Your task to perform on an android device: open wifi settings Image 0: 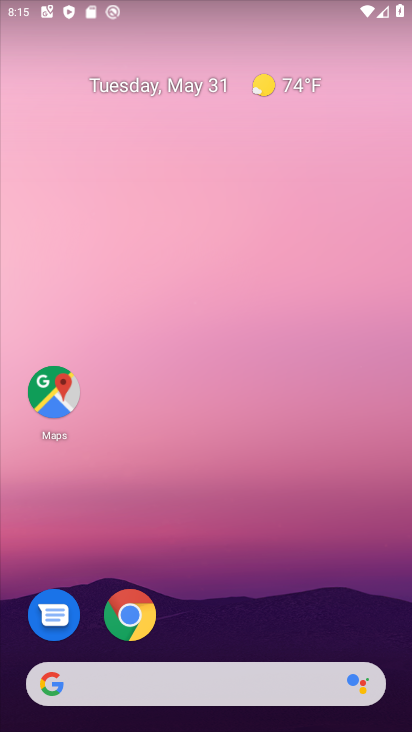
Step 0: drag from (179, 670) to (315, 77)
Your task to perform on an android device: open wifi settings Image 1: 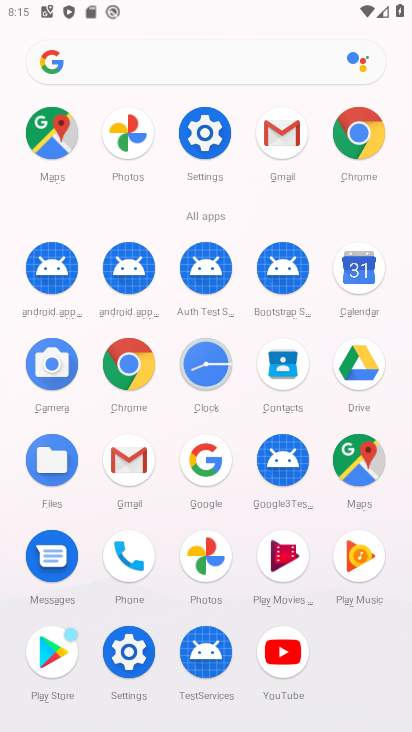
Step 1: click (203, 143)
Your task to perform on an android device: open wifi settings Image 2: 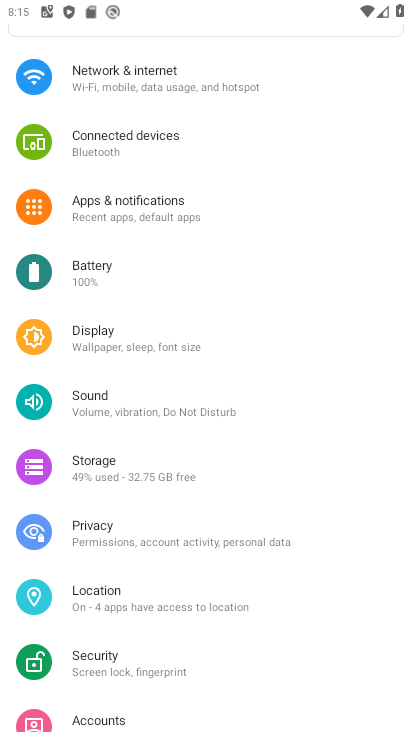
Step 2: click (159, 80)
Your task to perform on an android device: open wifi settings Image 3: 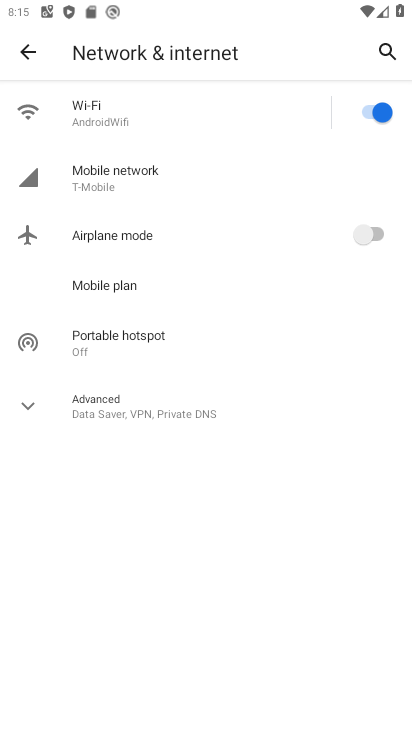
Step 3: click (95, 116)
Your task to perform on an android device: open wifi settings Image 4: 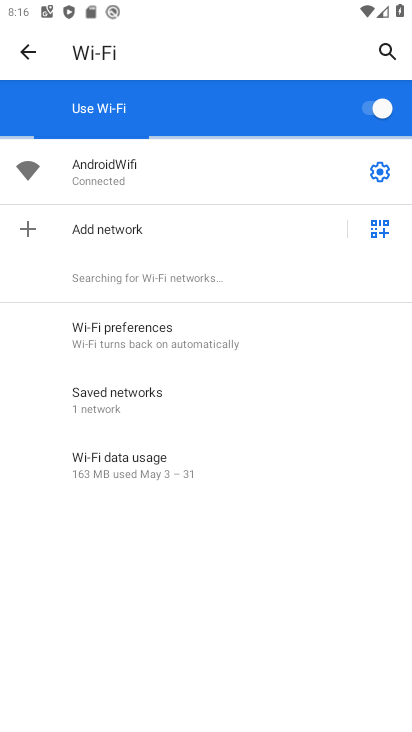
Step 4: task complete